Your task to perform on an android device: When is my next meeting? Image 0: 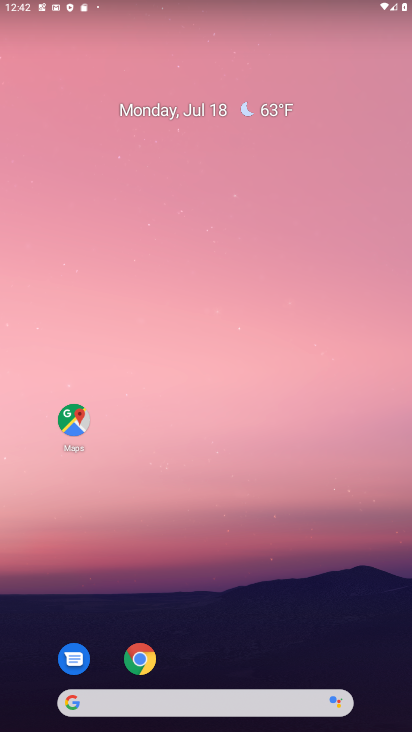
Step 0: drag from (171, 689) to (171, 245)
Your task to perform on an android device: When is my next meeting? Image 1: 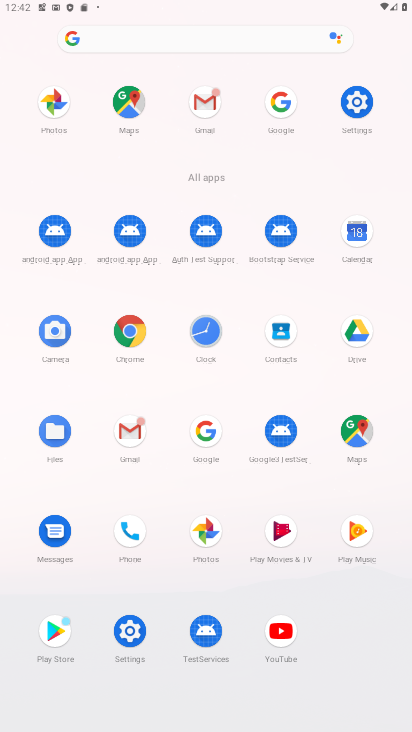
Step 1: click (364, 232)
Your task to perform on an android device: When is my next meeting? Image 2: 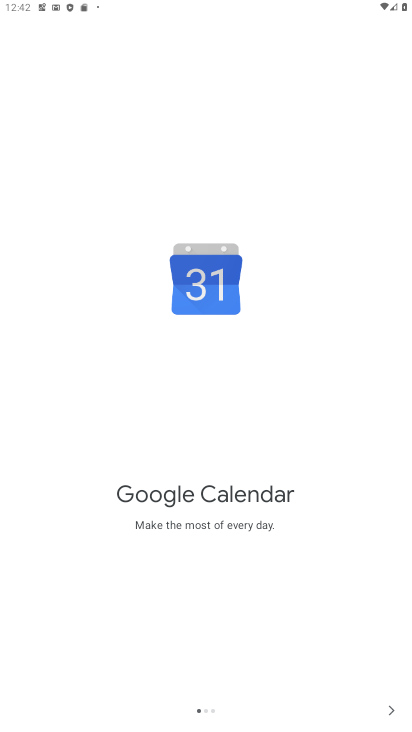
Step 2: click (388, 713)
Your task to perform on an android device: When is my next meeting? Image 3: 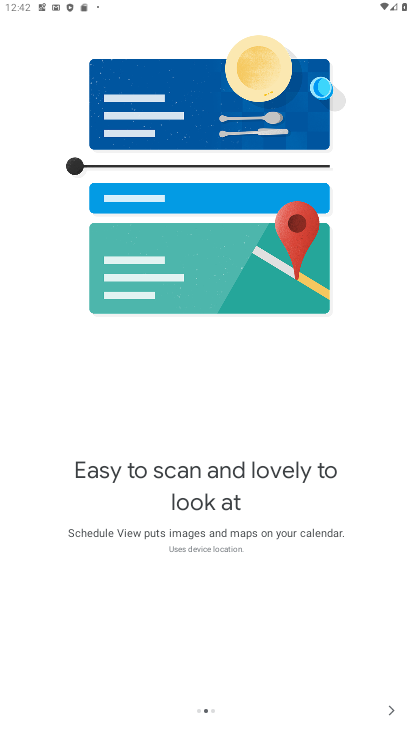
Step 3: click (387, 714)
Your task to perform on an android device: When is my next meeting? Image 4: 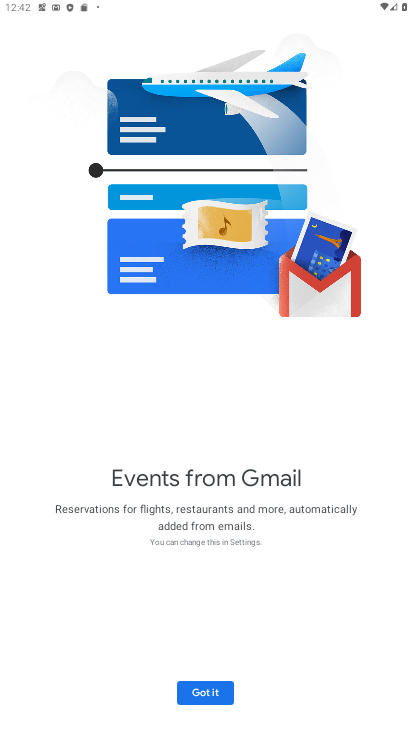
Step 4: click (198, 691)
Your task to perform on an android device: When is my next meeting? Image 5: 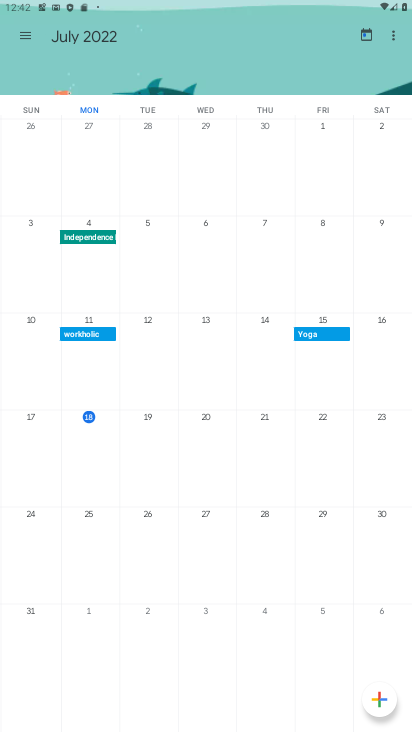
Step 5: click (90, 419)
Your task to perform on an android device: When is my next meeting? Image 6: 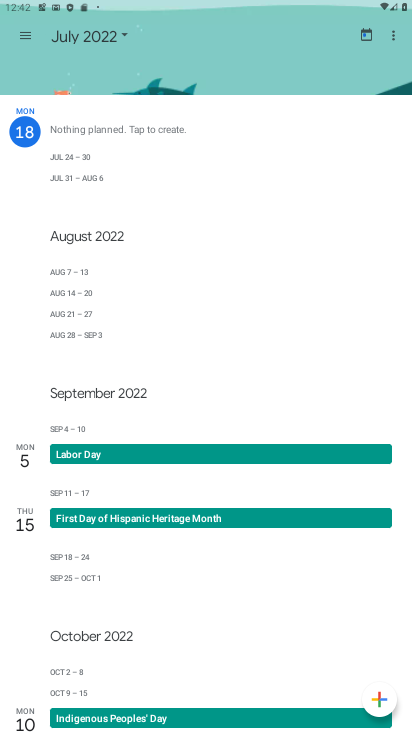
Step 6: task complete